Your task to perform on an android device: Open ESPN.com Image 0: 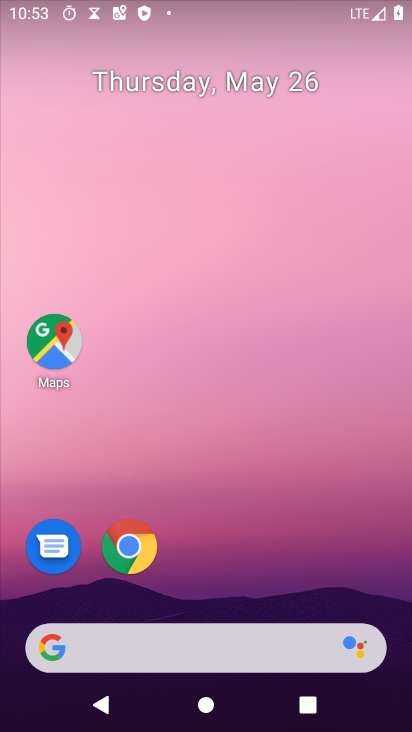
Step 0: drag from (316, 567) to (310, 133)
Your task to perform on an android device: Open ESPN.com Image 1: 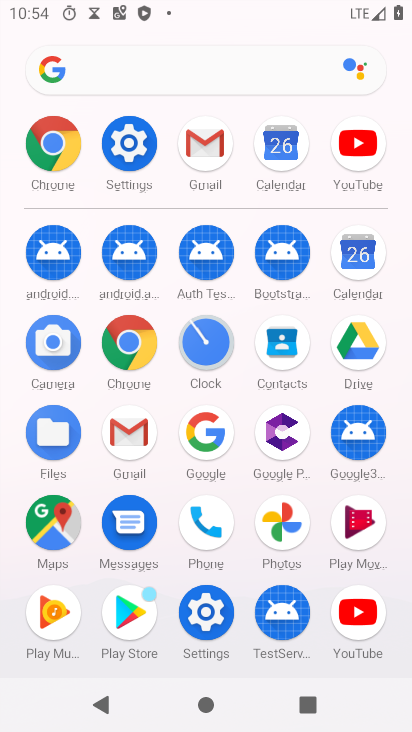
Step 1: click (125, 339)
Your task to perform on an android device: Open ESPN.com Image 2: 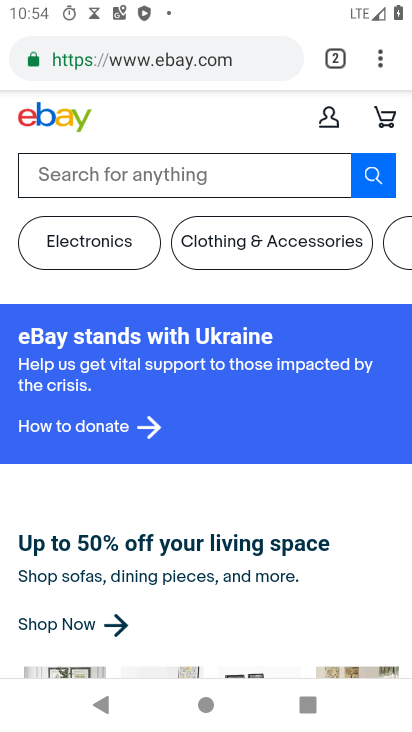
Step 2: click (203, 50)
Your task to perform on an android device: Open ESPN.com Image 3: 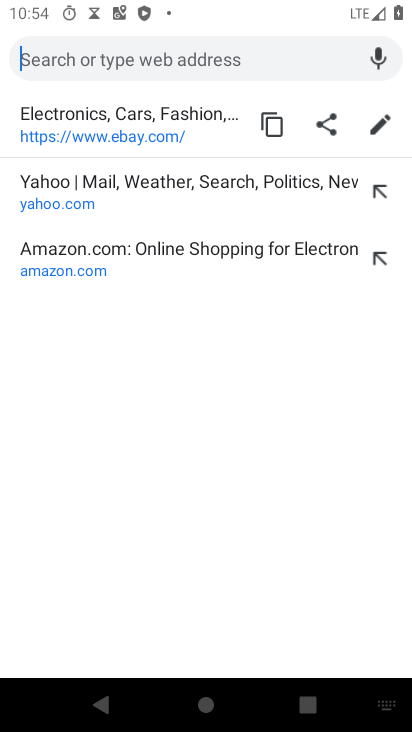
Step 3: type "espn.com"
Your task to perform on an android device: Open ESPN.com Image 4: 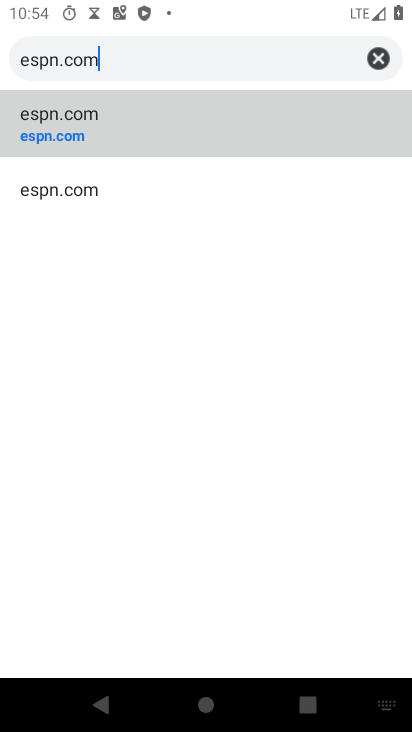
Step 4: click (168, 150)
Your task to perform on an android device: Open ESPN.com Image 5: 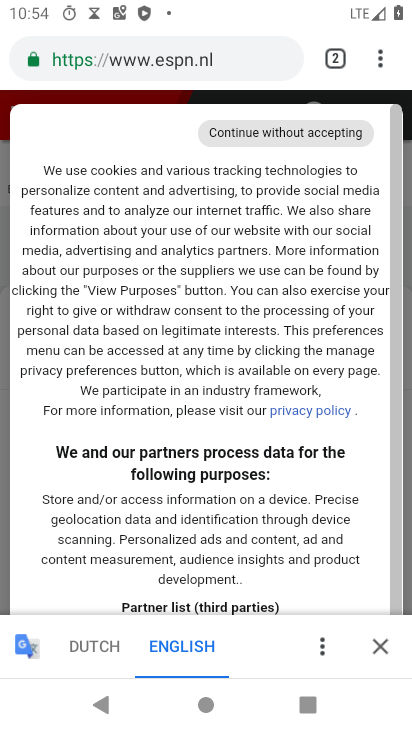
Step 5: task complete